Your task to perform on an android device: toggle priority inbox in the gmail app Image 0: 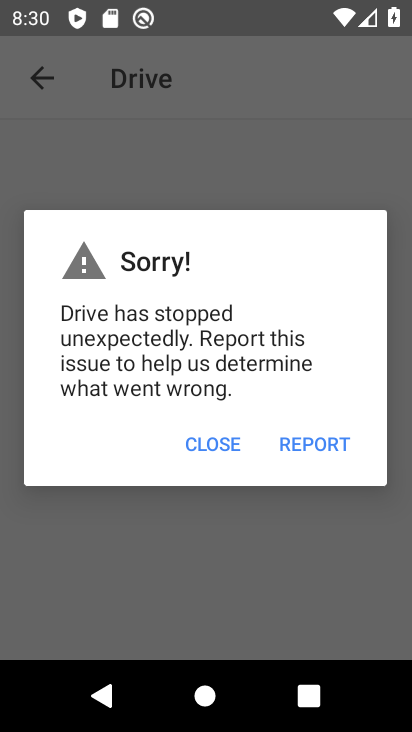
Step 0: press home button
Your task to perform on an android device: toggle priority inbox in the gmail app Image 1: 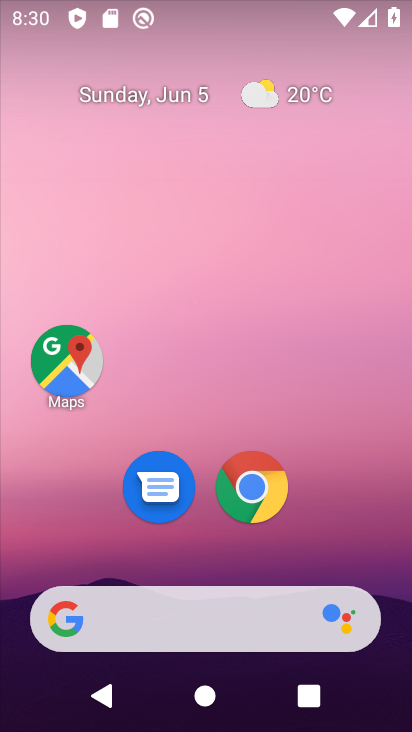
Step 1: drag from (197, 574) to (193, 225)
Your task to perform on an android device: toggle priority inbox in the gmail app Image 2: 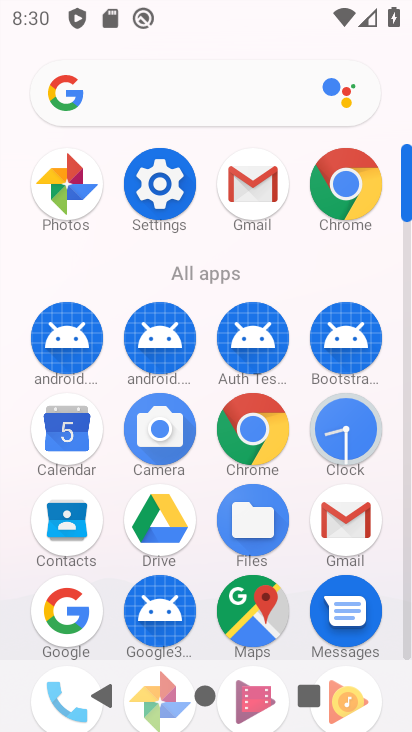
Step 2: click (238, 188)
Your task to perform on an android device: toggle priority inbox in the gmail app Image 3: 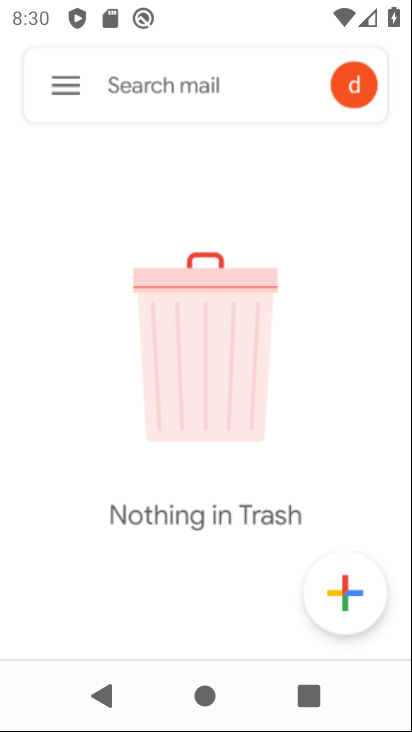
Step 3: click (51, 83)
Your task to perform on an android device: toggle priority inbox in the gmail app Image 4: 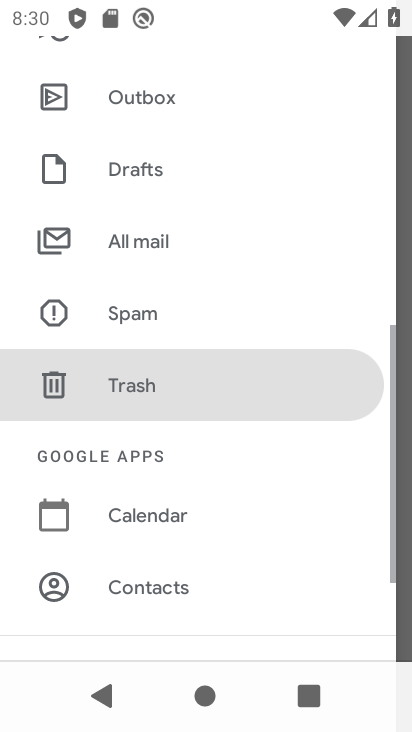
Step 4: drag from (126, 596) to (166, 252)
Your task to perform on an android device: toggle priority inbox in the gmail app Image 5: 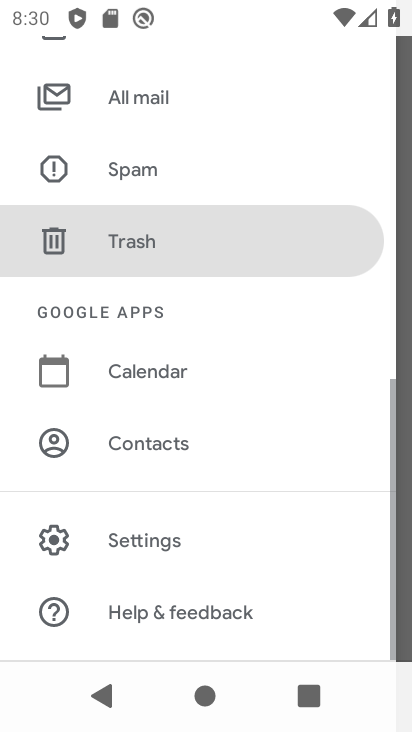
Step 5: click (119, 540)
Your task to perform on an android device: toggle priority inbox in the gmail app Image 6: 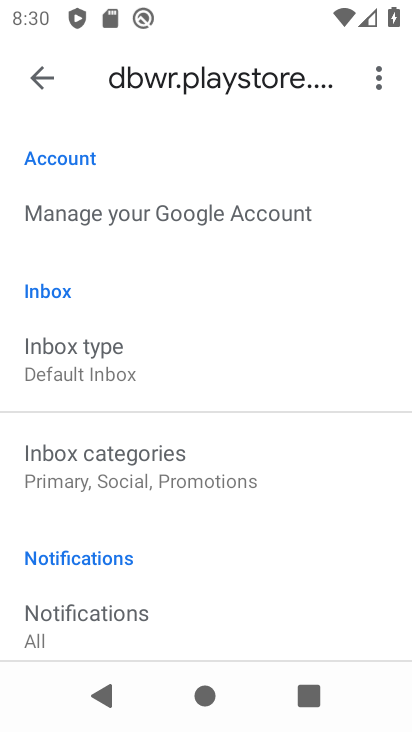
Step 6: click (133, 365)
Your task to perform on an android device: toggle priority inbox in the gmail app Image 7: 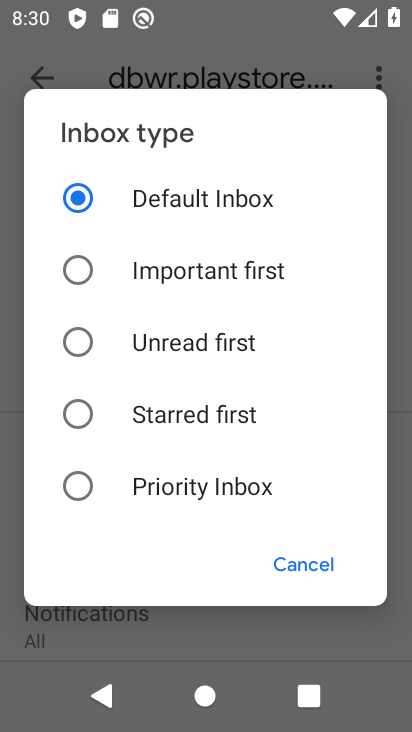
Step 7: click (159, 463)
Your task to perform on an android device: toggle priority inbox in the gmail app Image 8: 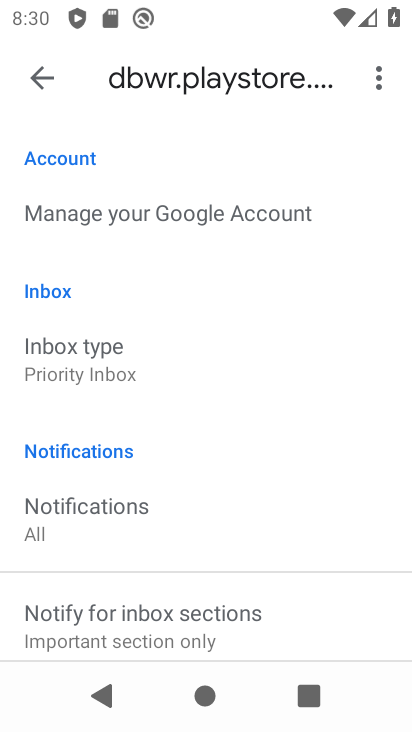
Step 8: task complete